Your task to perform on an android device: Open Chrome and go to settings Image 0: 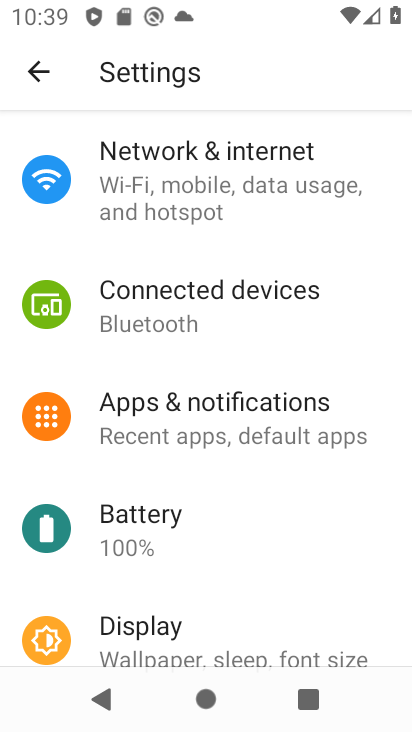
Step 0: press home button
Your task to perform on an android device: Open Chrome and go to settings Image 1: 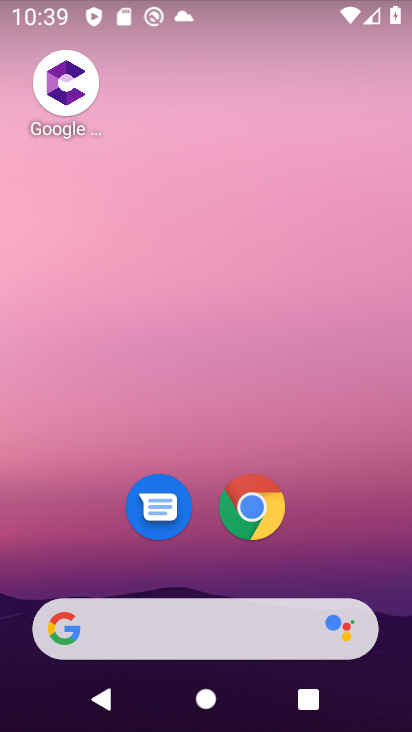
Step 1: click (252, 505)
Your task to perform on an android device: Open Chrome and go to settings Image 2: 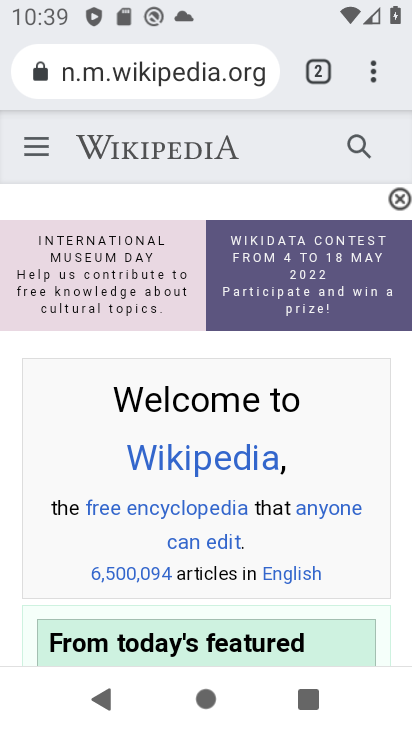
Step 2: click (373, 67)
Your task to perform on an android device: Open Chrome and go to settings Image 3: 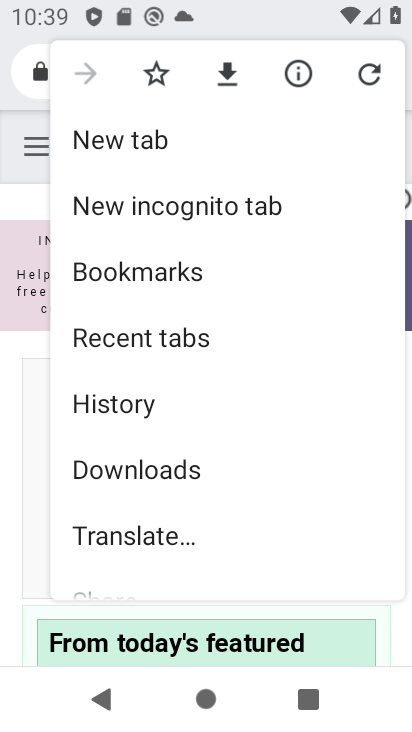
Step 3: drag from (234, 518) to (185, 323)
Your task to perform on an android device: Open Chrome and go to settings Image 4: 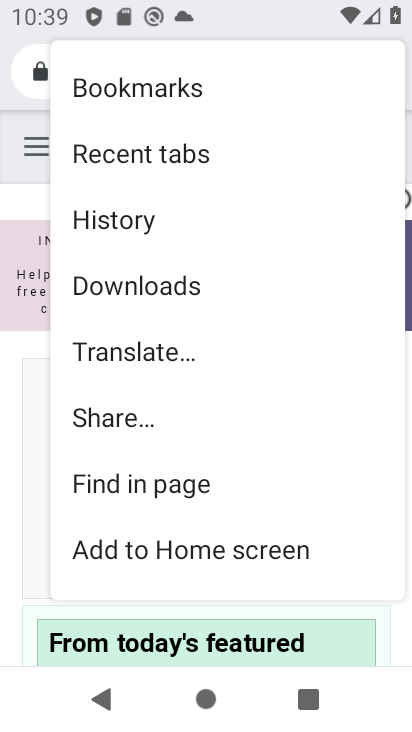
Step 4: drag from (225, 493) to (195, 313)
Your task to perform on an android device: Open Chrome and go to settings Image 5: 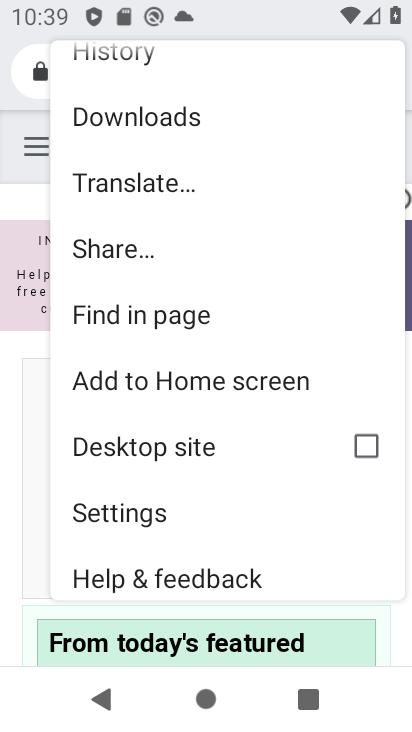
Step 5: click (130, 513)
Your task to perform on an android device: Open Chrome and go to settings Image 6: 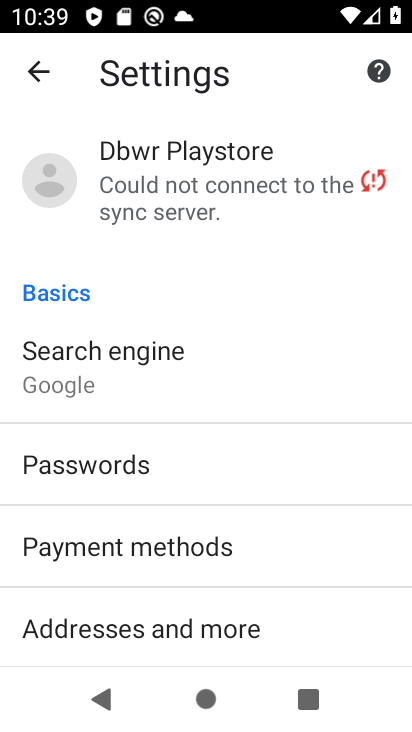
Step 6: task complete